Your task to perform on an android device: turn off sleep mode Image 0: 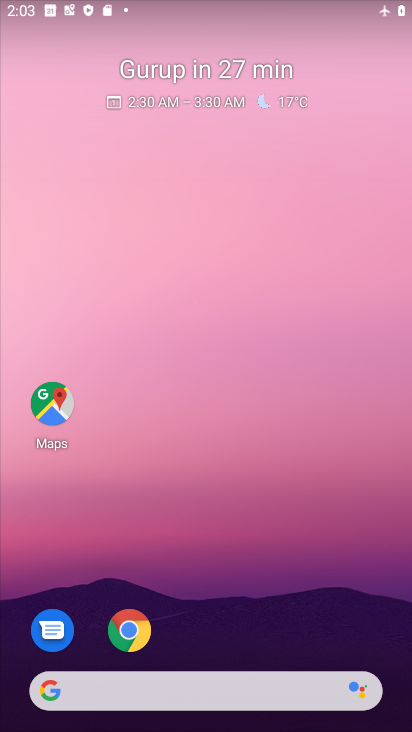
Step 0: drag from (243, 621) to (300, 8)
Your task to perform on an android device: turn off sleep mode Image 1: 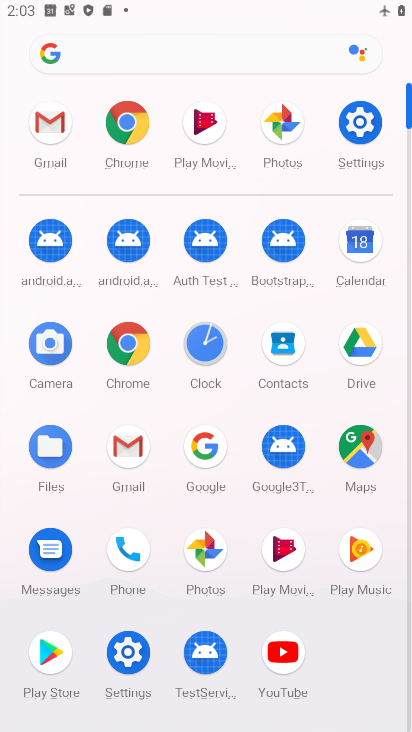
Step 1: click (364, 123)
Your task to perform on an android device: turn off sleep mode Image 2: 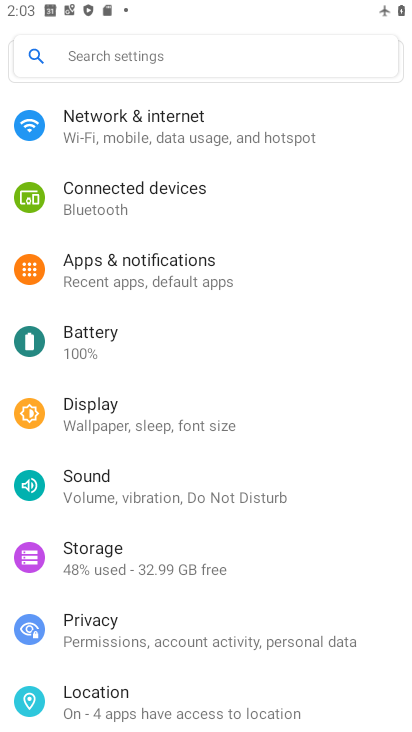
Step 2: click (102, 411)
Your task to perform on an android device: turn off sleep mode Image 3: 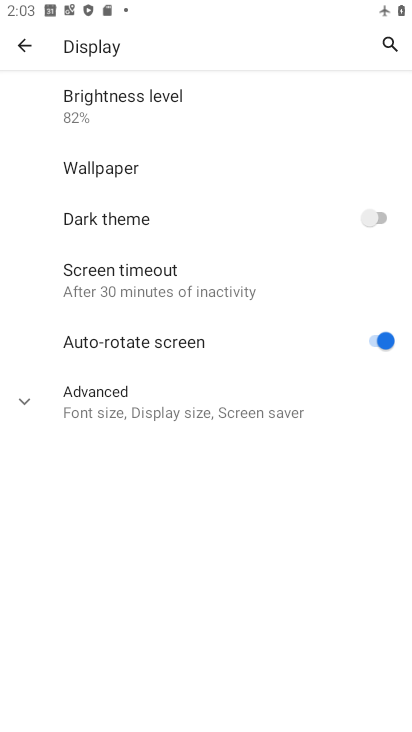
Step 3: click (27, 401)
Your task to perform on an android device: turn off sleep mode Image 4: 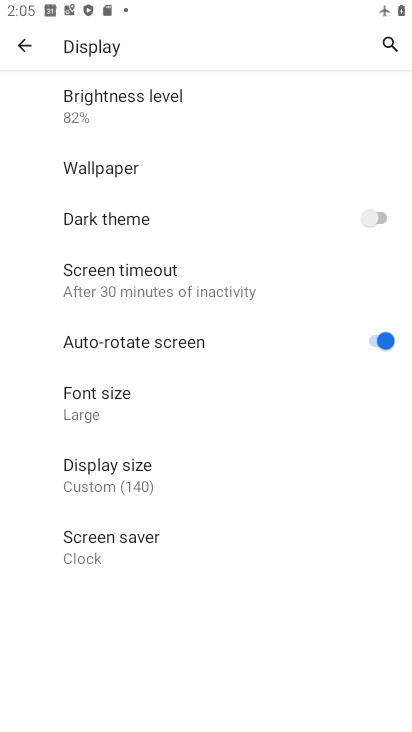
Step 4: task complete